Your task to perform on an android device: turn off improve location accuracy Image 0: 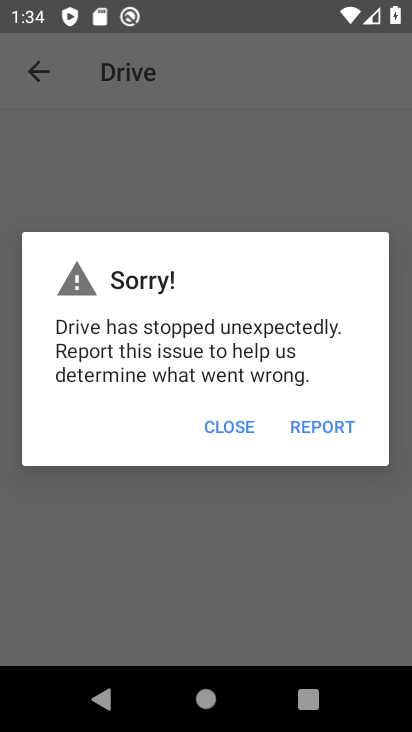
Step 0: click (229, 426)
Your task to perform on an android device: turn off improve location accuracy Image 1: 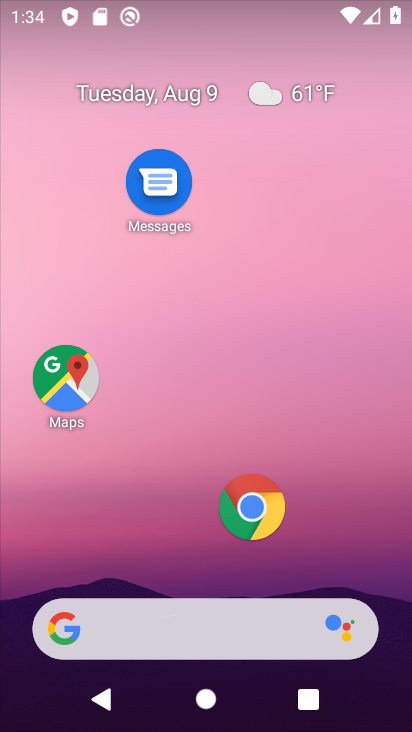
Step 1: click (258, 517)
Your task to perform on an android device: turn off improve location accuracy Image 2: 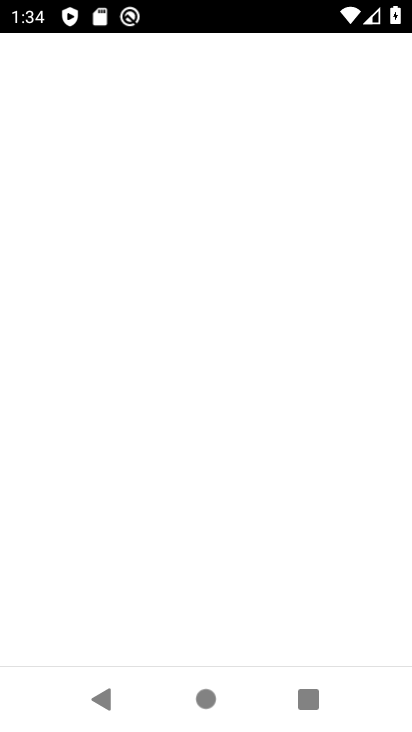
Step 2: press back button
Your task to perform on an android device: turn off improve location accuracy Image 3: 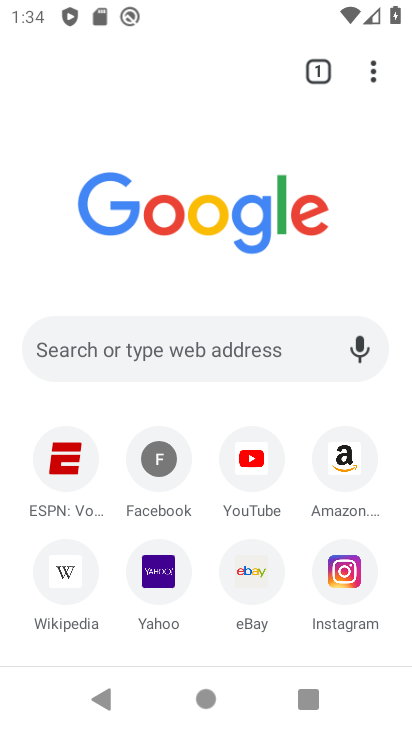
Step 3: press back button
Your task to perform on an android device: turn off improve location accuracy Image 4: 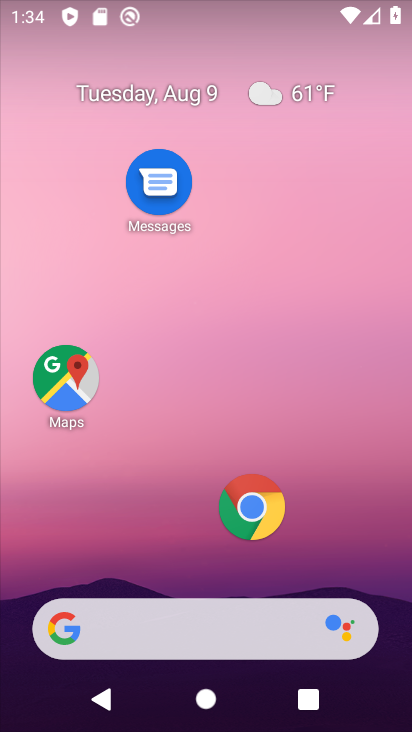
Step 4: drag from (138, 575) to (260, 90)
Your task to perform on an android device: turn off improve location accuracy Image 5: 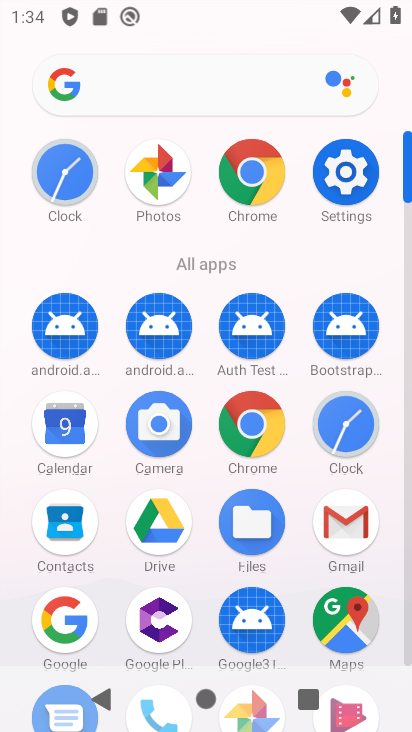
Step 5: click (347, 173)
Your task to perform on an android device: turn off improve location accuracy Image 6: 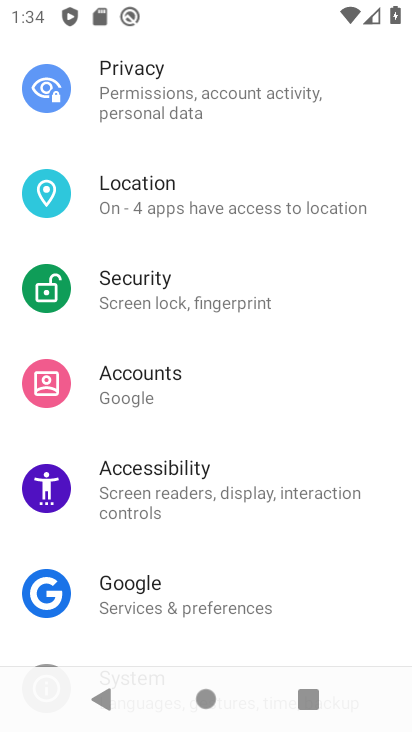
Step 6: click (223, 201)
Your task to perform on an android device: turn off improve location accuracy Image 7: 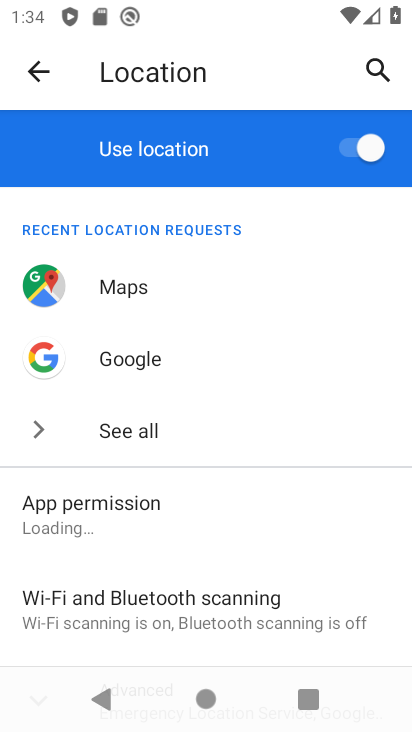
Step 7: drag from (194, 579) to (309, 115)
Your task to perform on an android device: turn off improve location accuracy Image 8: 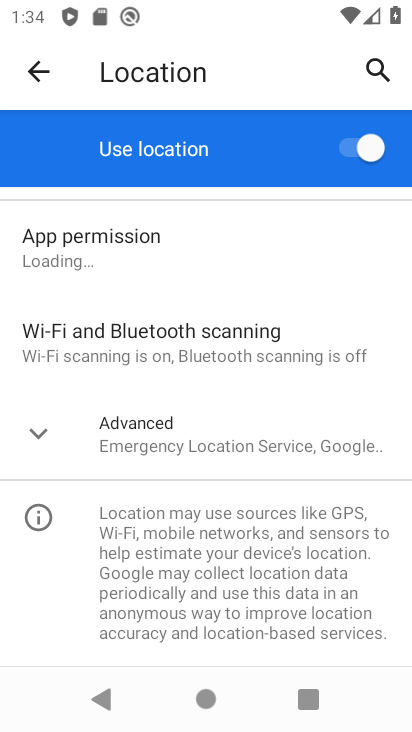
Step 8: click (179, 434)
Your task to perform on an android device: turn off improve location accuracy Image 9: 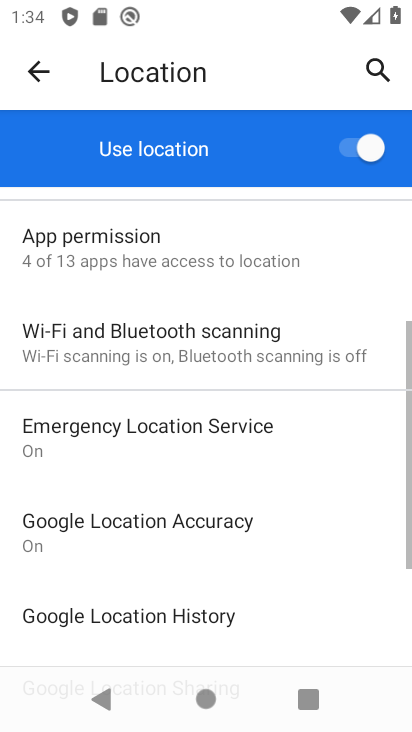
Step 9: click (56, 527)
Your task to perform on an android device: turn off improve location accuracy Image 10: 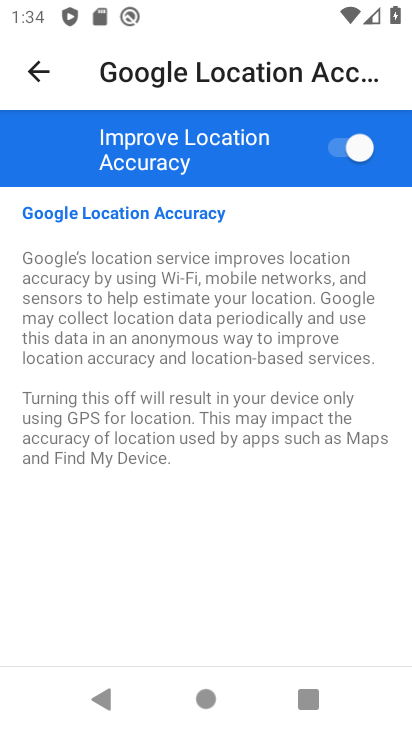
Step 10: click (344, 147)
Your task to perform on an android device: turn off improve location accuracy Image 11: 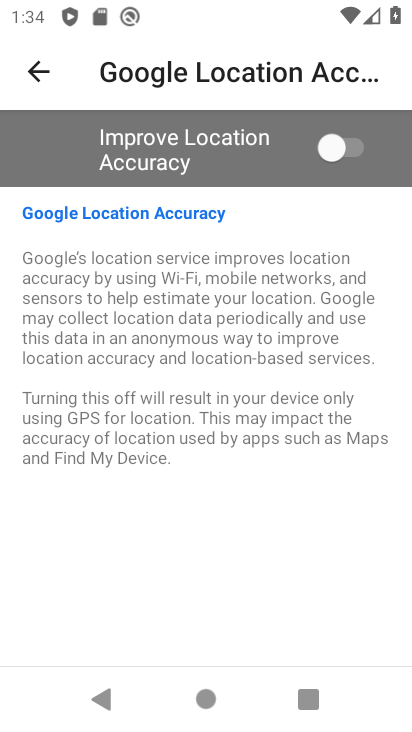
Step 11: task complete